Your task to perform on an android device: Go to network settings Image 0: 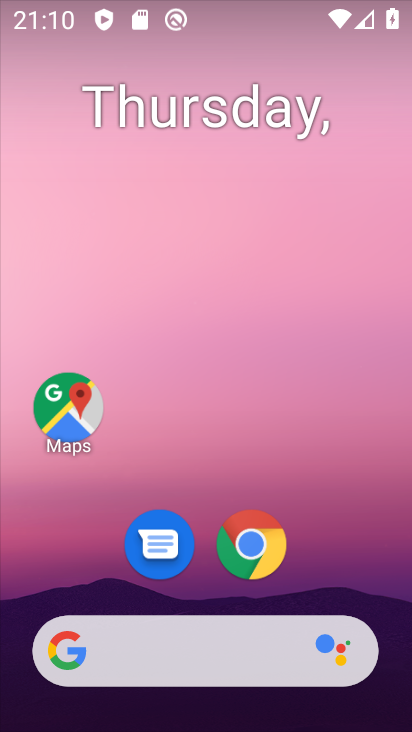
Step 0: drag from (204, 660) to (317, 57)
Your task to perform on an android device: Go to network settings Image 1: 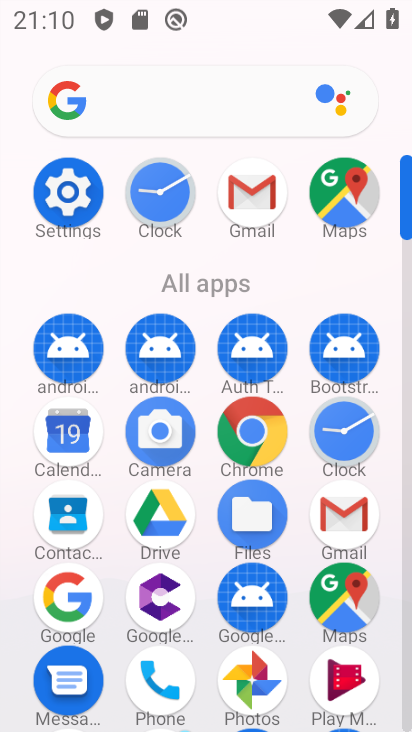
Step 1: click (52, 180)
Your task to perform on an android device: Go to network settings Image 2: 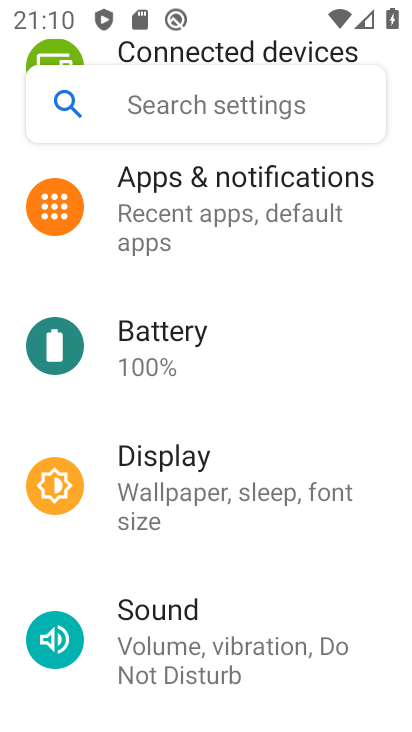
Step 2: drag from (302, 223) to (106, 714)
Your task to perform on an android device: Go to network settings Image 3: 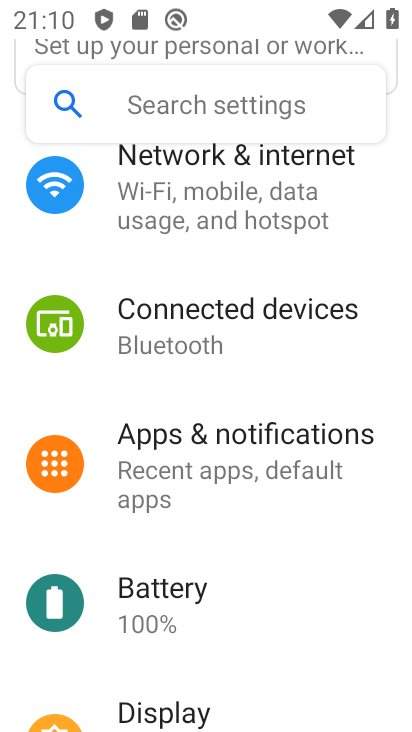
Step 3: click (279, 203)
Your task to perform on an android device: Go to network settings Image 4: 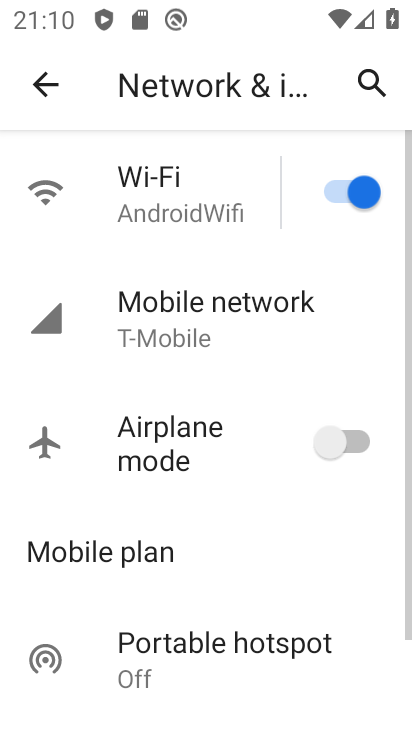
Step 4: task complete